Your task to perform on an android device: turn pop-ups on in chrome Image 0: 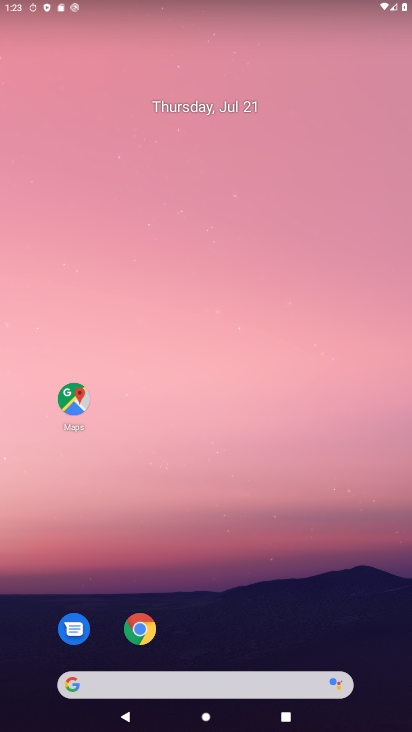
Step 0: click (137, 638)
Your task to perform on an android device: turn pop-ups on in chrome Image 1: 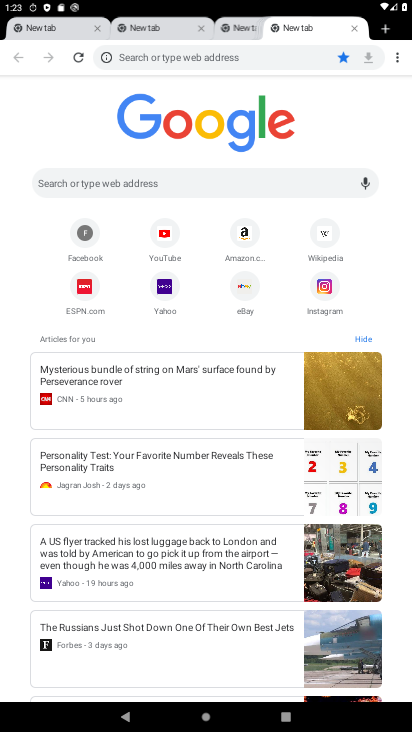
Step 1: click (396, 56)
Your task to perform on an android device: turn pop-ups on in chrome Image 2: 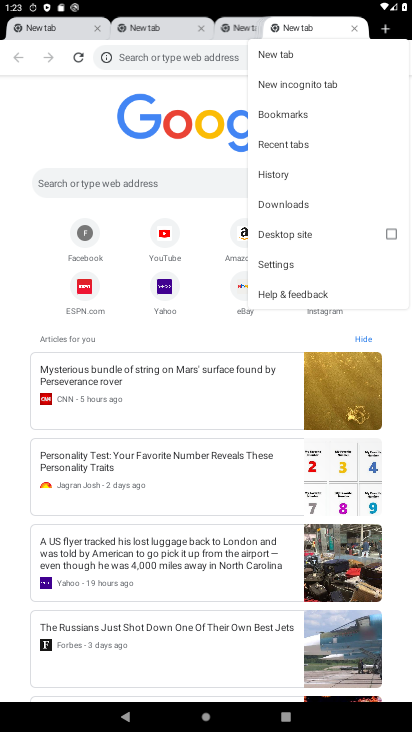
Step 2: click (277, 268)
Your task to perform on an android device: turn pop-ups on in chrome Image 3: 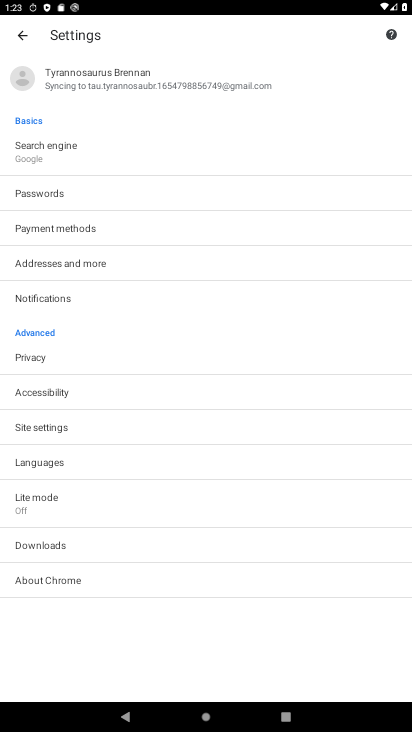
Step 3: click (52, 428)
Your task to perform on an android device: turn pop-ups on in chrome Image 4: 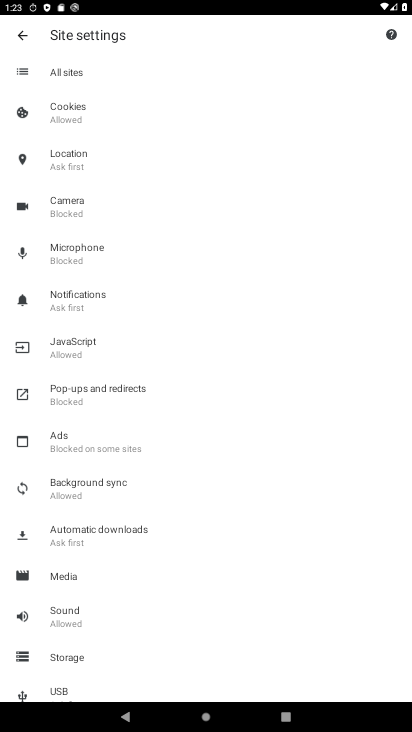
Step 4: click (88, 364)
Your task to perform on an android device: turn pop-ups on in chrome Image 5: 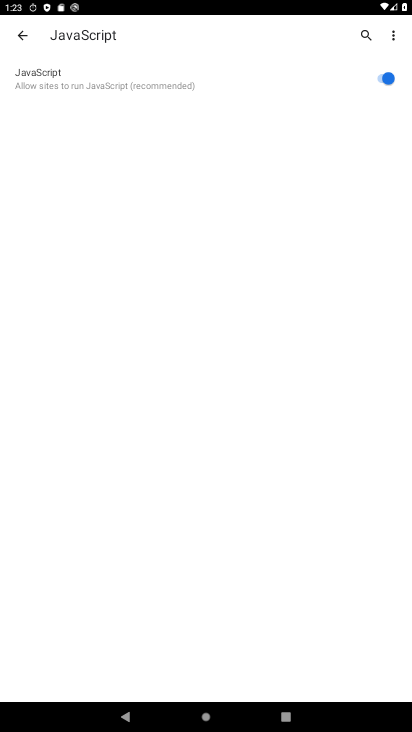
Step 5: click (16, 35)
Your task to perform on an android device: turn pop-ups on in chrome Image 6: 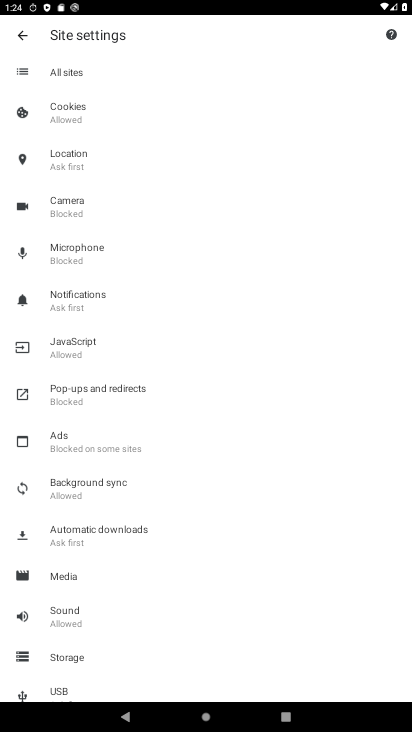
Step 6: click (110, 395)
Your task to perform on an android device: turn pop-ups on in chrome Image 7: 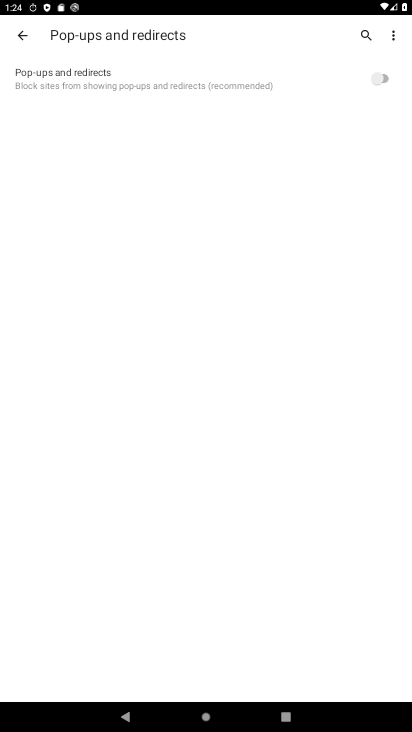
Step 7: click (368, 81)
Your task to perform on an android device: turn pop-ups on in chrome Image 8: 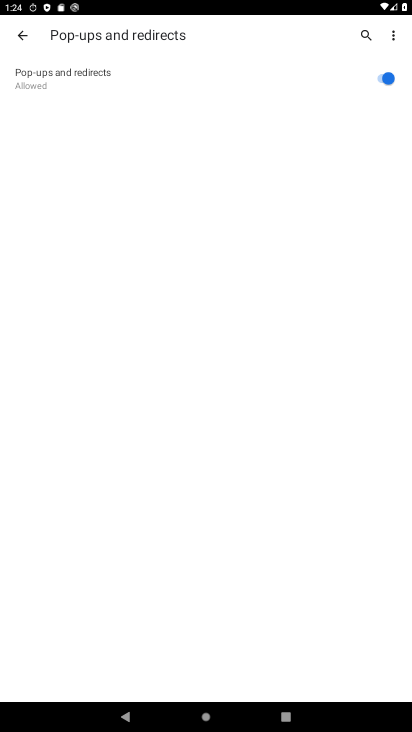
Step 8: task complete